Your task to perform on an android device: delete location history Image 0: 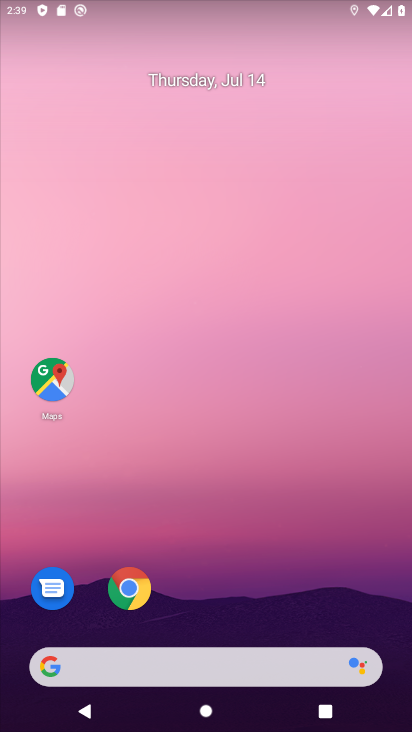
Step 0: drag from (197, 644) to (159, 27)
Your task to perform on an android device: delete location history Image 1: 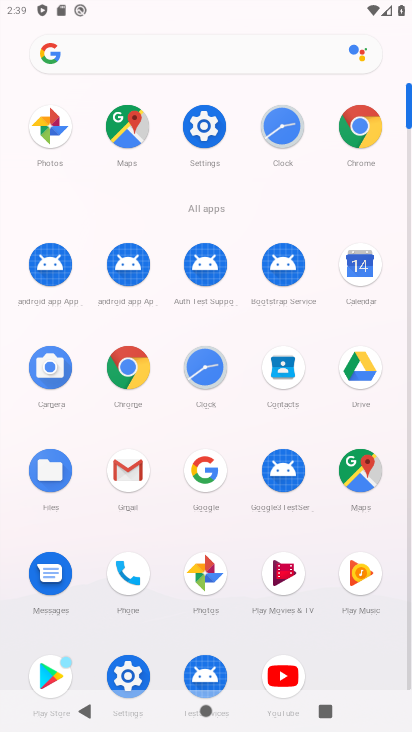
Step 1: click (339, 461)
Your task to perform on an android device: delete location history Image 2: 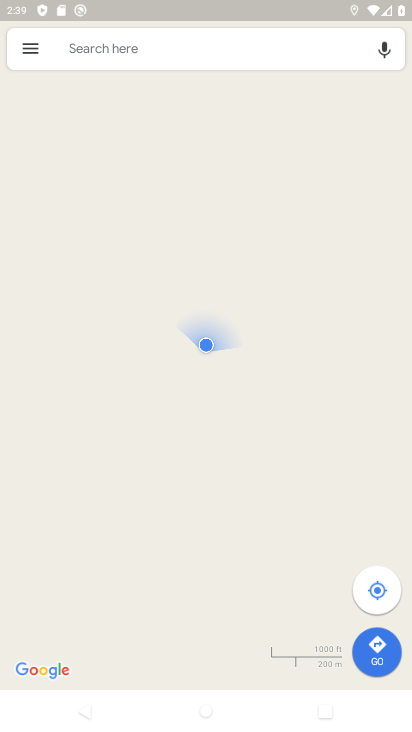
Step 2: click (25, 53)
Your task to perform on an android device: delete location history Image 3: 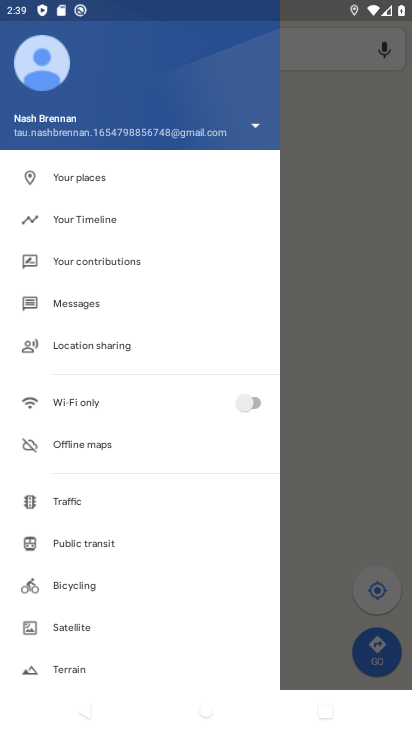
Step 3: click (85, 210)
Your task to perform on an android device: delete location history Image 4: 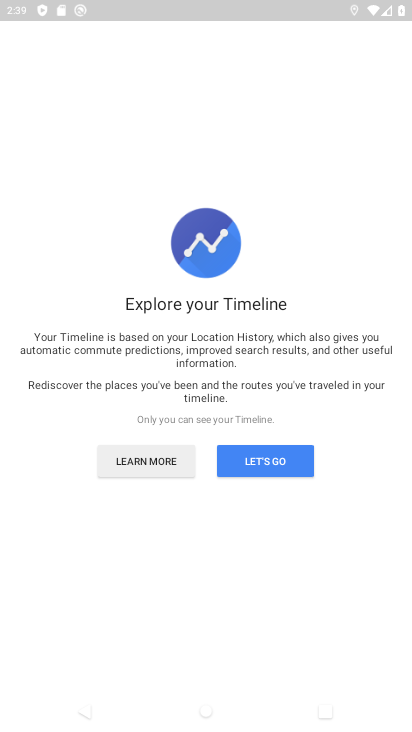
Step 4: click (243, 456)
Your task to perform on an android device: delete location history Image 5: 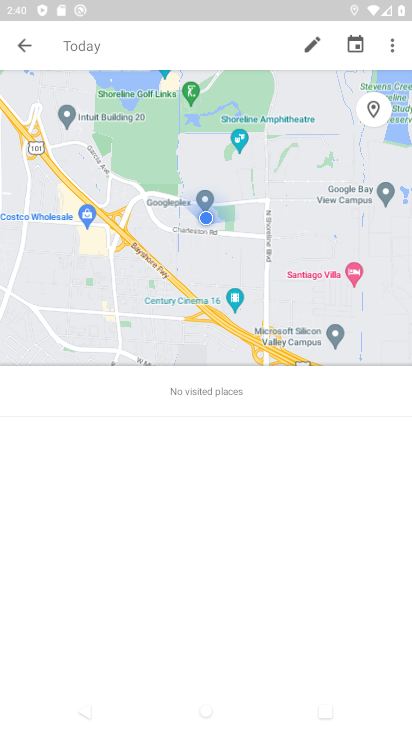
Step 5: drag from (393, 45) to (380, 154)
Your task to perform on an android device: delete location history Image 6: 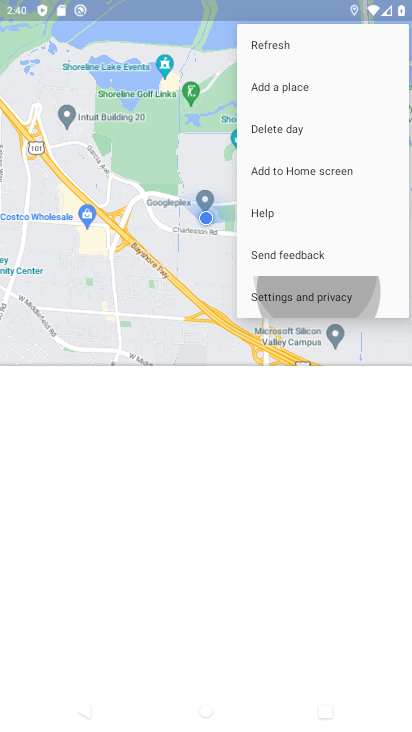
Step 6: click (382, 50)
Your task to perform on an android device: delete location history Image 7: 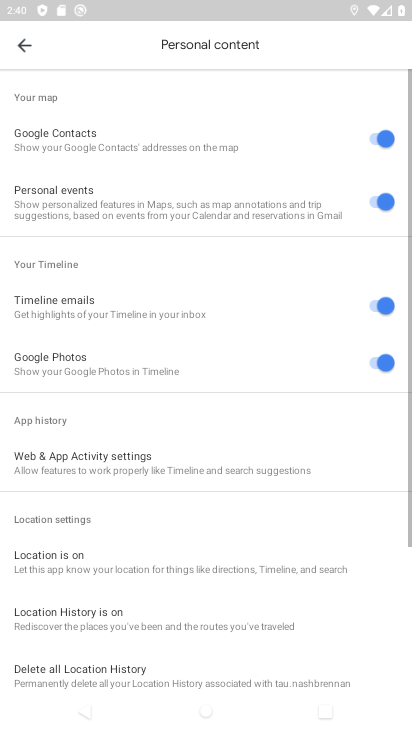
Step 7: click (138, 678)
Your task to perform on an android device: delete location history Image 8: 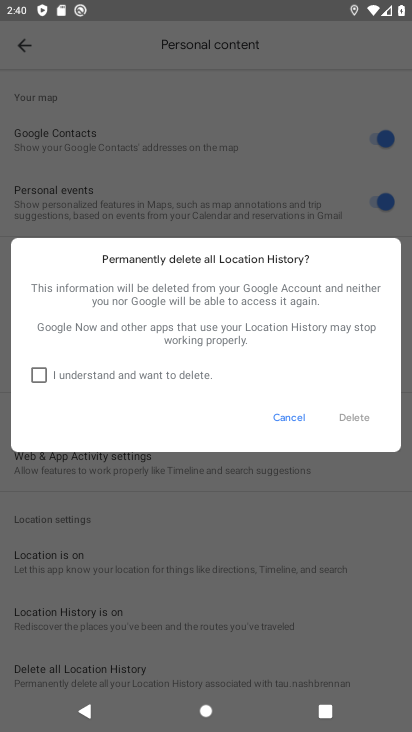
Step 8: click (39, 370)
Your task to perform on an android device: delete location history Image 9: 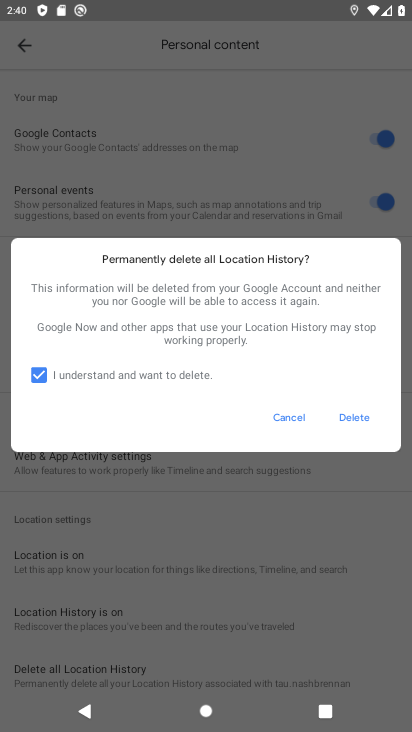
Step 9: click (358, 415)
Your task to perform on an android device: delete location history Image 10: 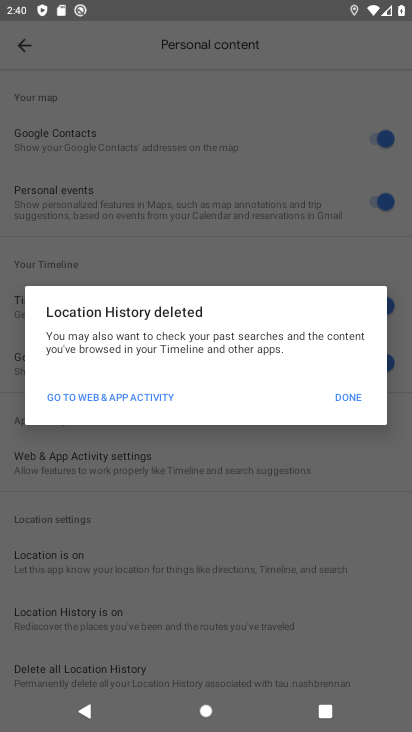
Step 10: click (356, 404)
Your task to perform on an android device: delete location history Image 11: 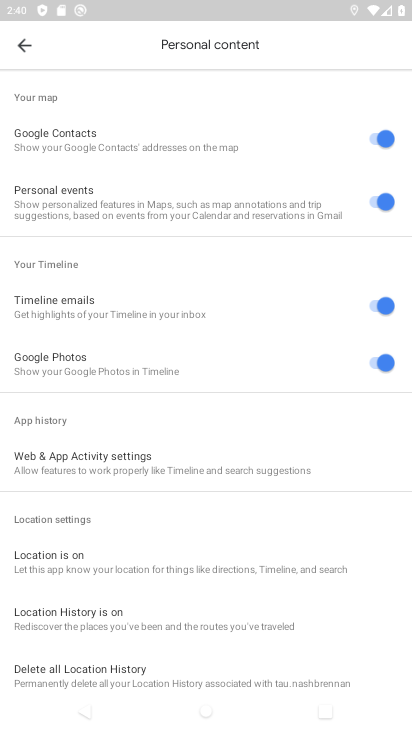
Step 11: task complete